Your task to perform on an android device: turn on sleep mode Image 0: 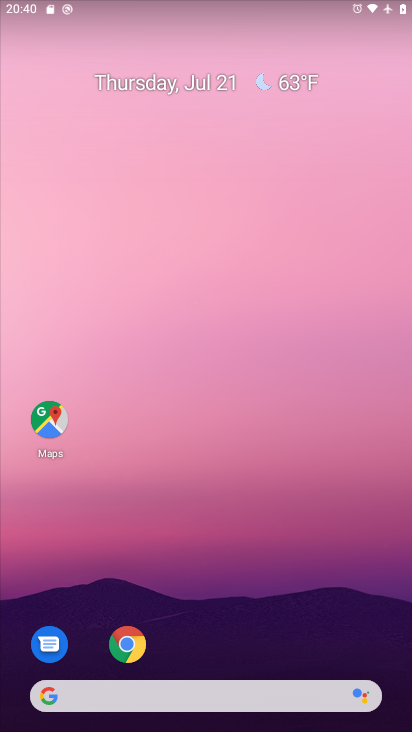
Step 0: drag from (238, 625) to (219, 156)
Your task to perform on an android device: turn on sleep mode Image 1: 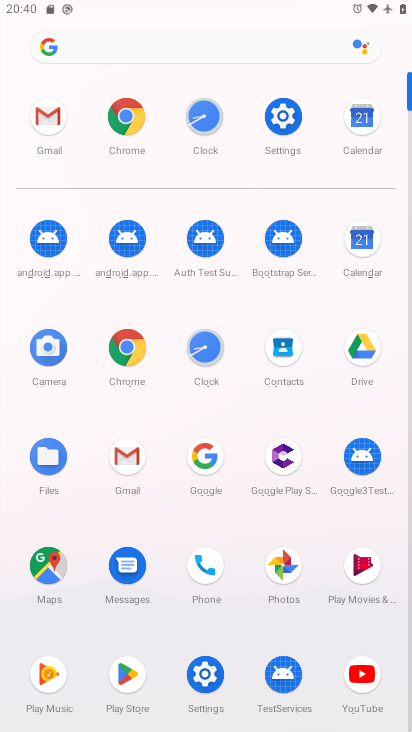
Step 1: click (273, 110)
Your task to perform on an android device: turn on sleep mode Image 2: 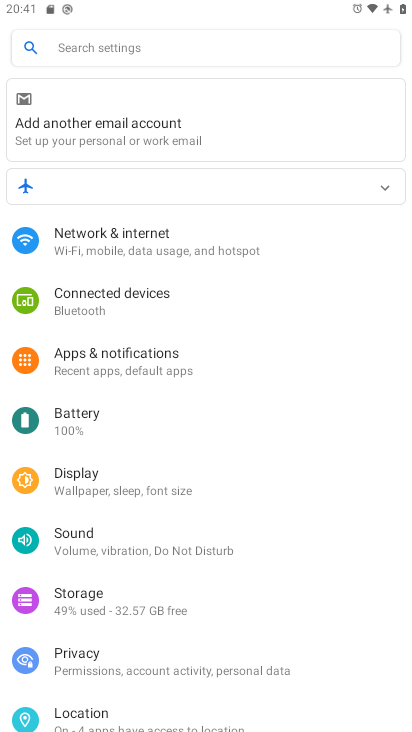
Step 2: task complete